Your task to perform on an android device: open app "Google Pay: Save, Pay, Manage" Image 0: 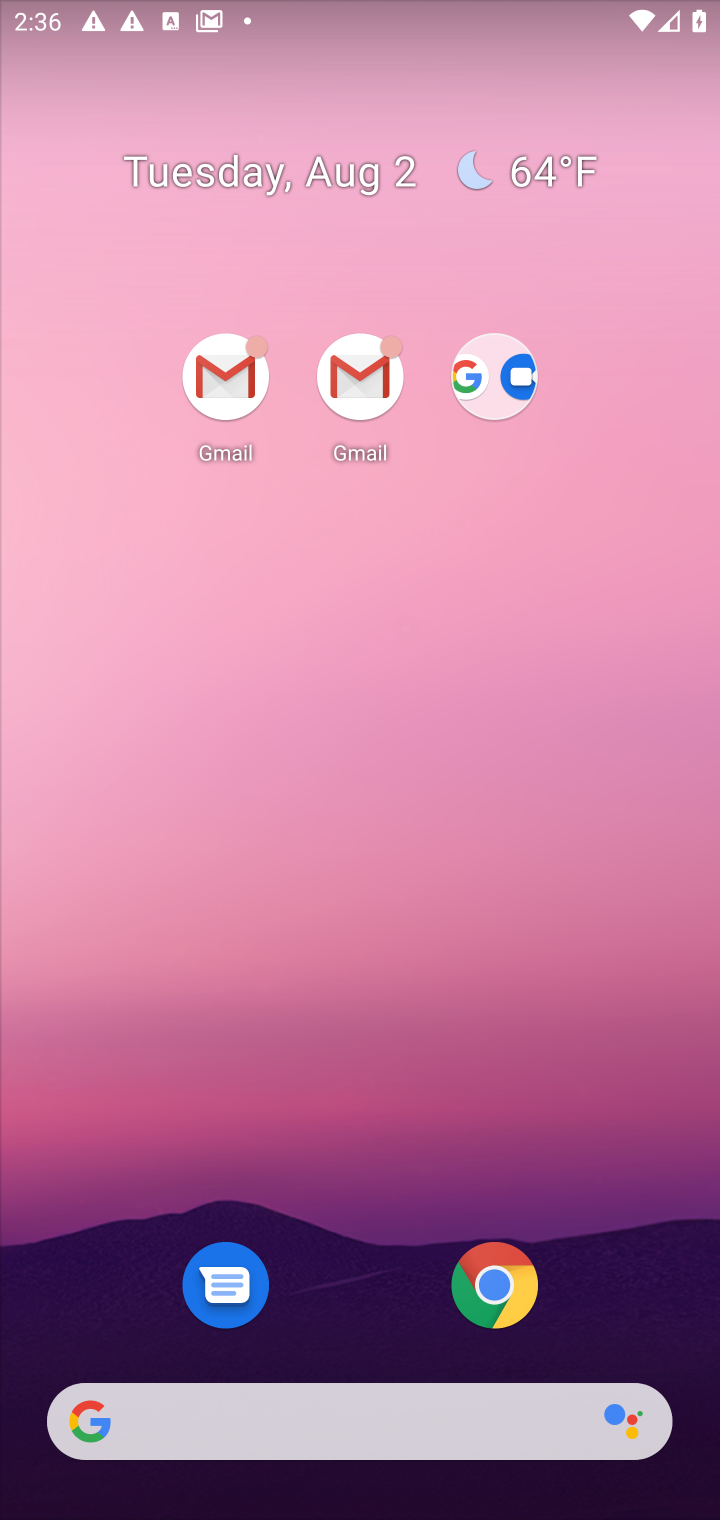
Step 0: drag from (414, 804) to (552, 232)
Your task to perform on an android device: open app "Google Pay: Save, Pay, Manage" Image 1: 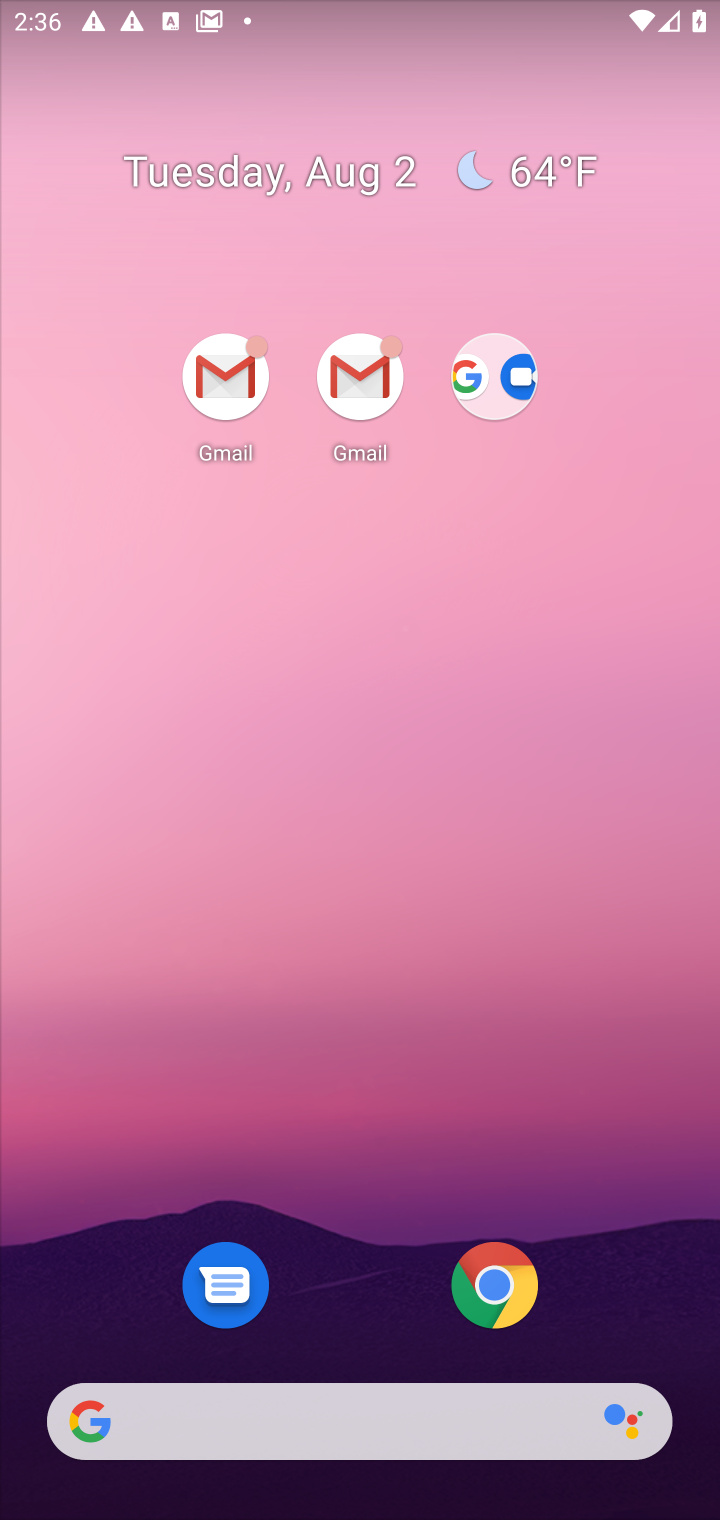
Step 1: drag from (494, 640) to (548, 50)
Your task to perform on an android device: open app "Google Pay: Save, Pay, Manage" Image 2: 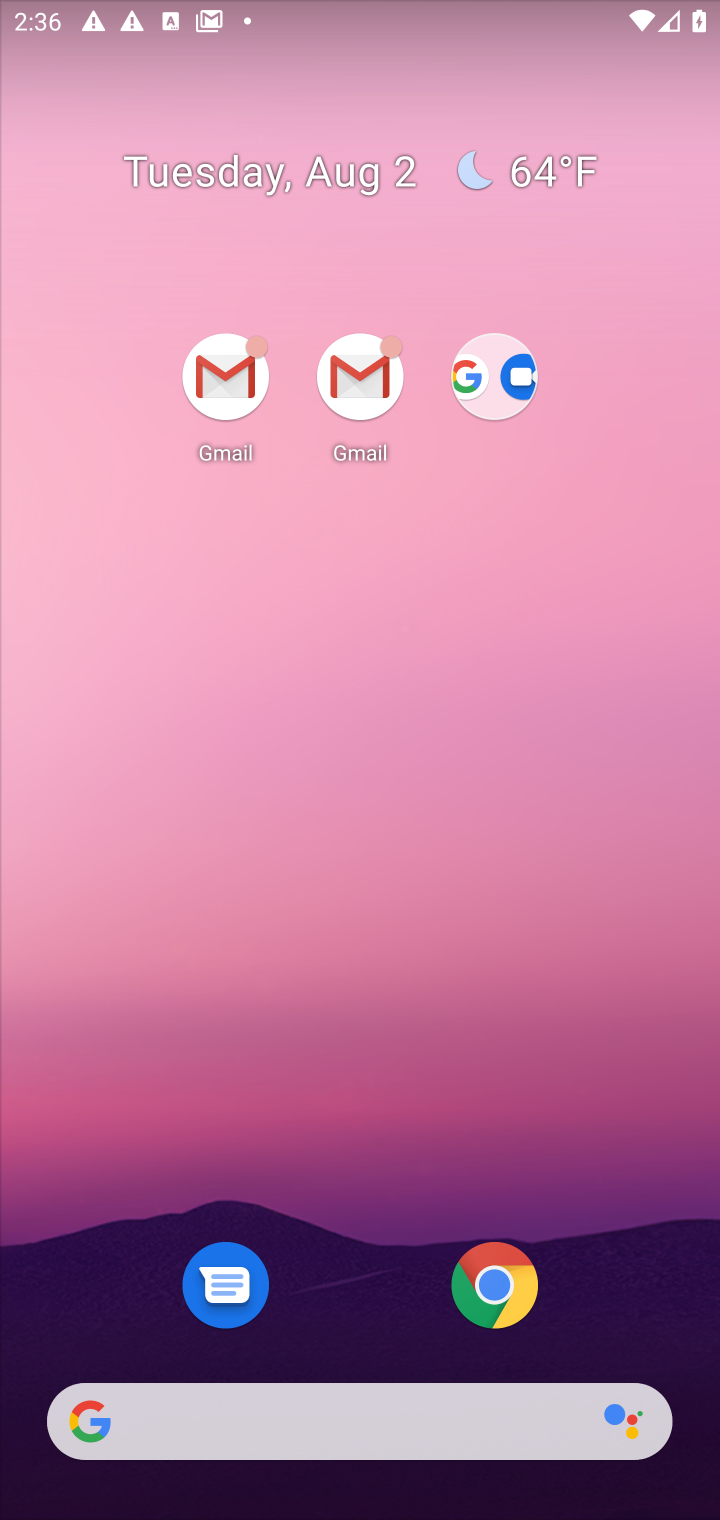
Step 2: drag from (585, 963) to (566, 272)
Your task to perform on an android device: open app "Google Pay: Save, Pay, Manage" Image 3: 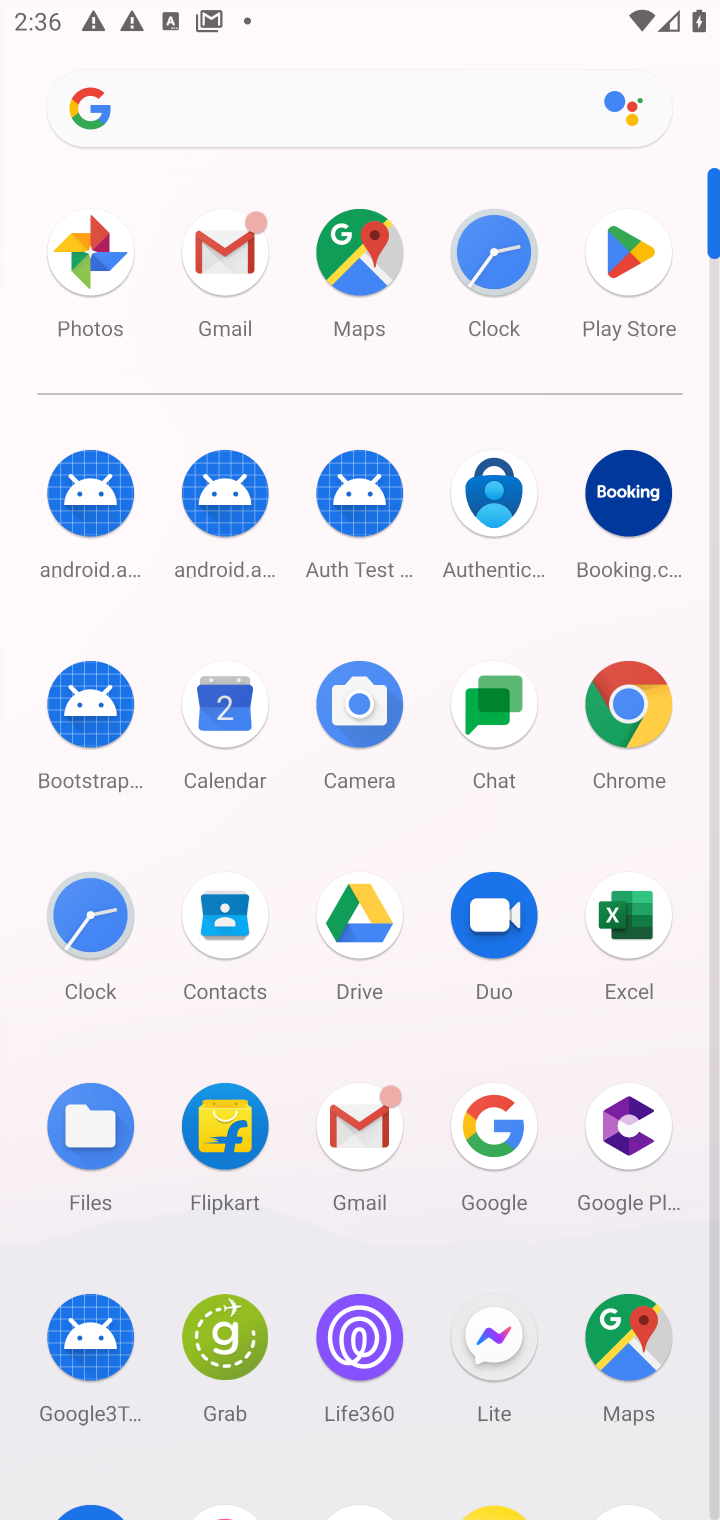
Step 3: drag from (429, 1351) to (452, 603)
Your task to perform on an android device: open app "Google Pay: Save, Pay, Manage" Image 4: 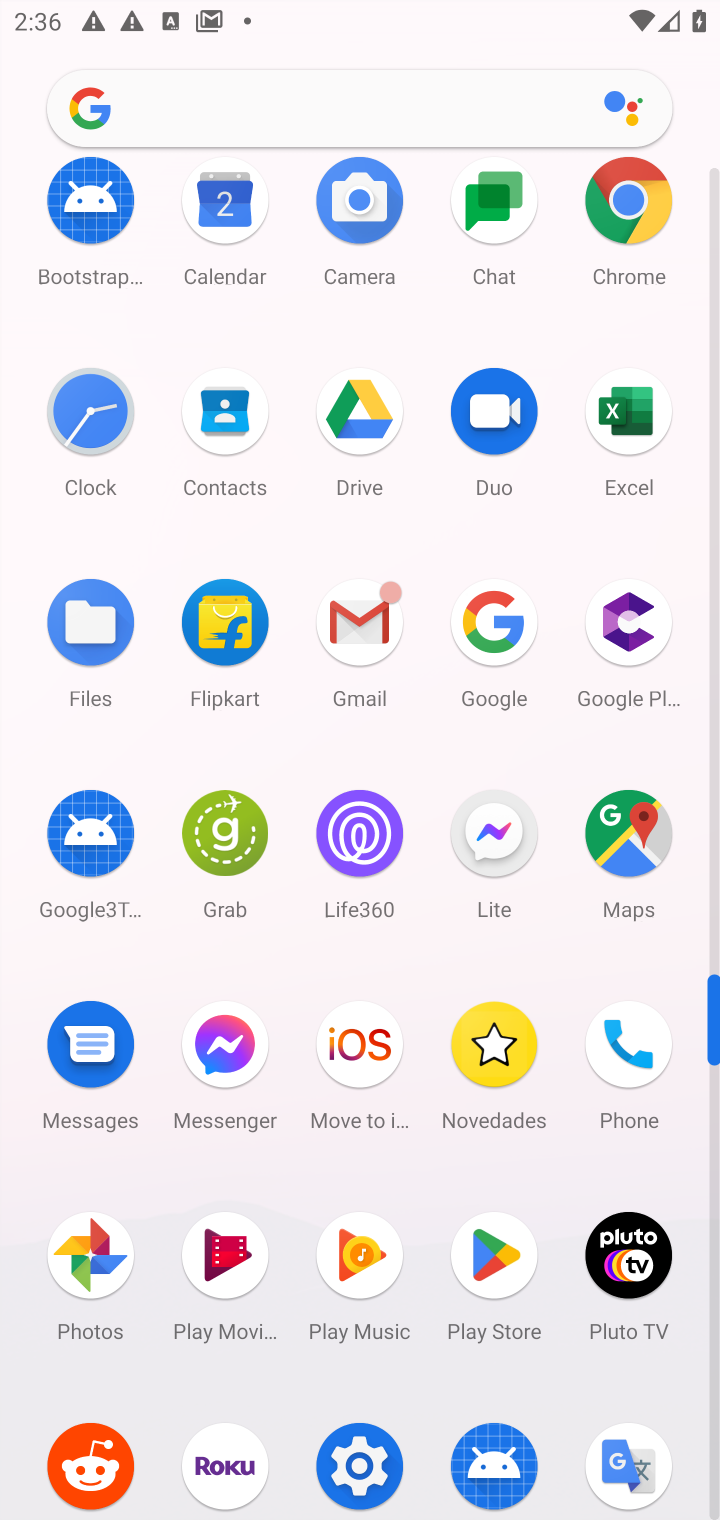
Step 4: click (488, 1241)
Your task to perform on an android device: open app "Google Pay: Save, Pay, Manage" Image 5: 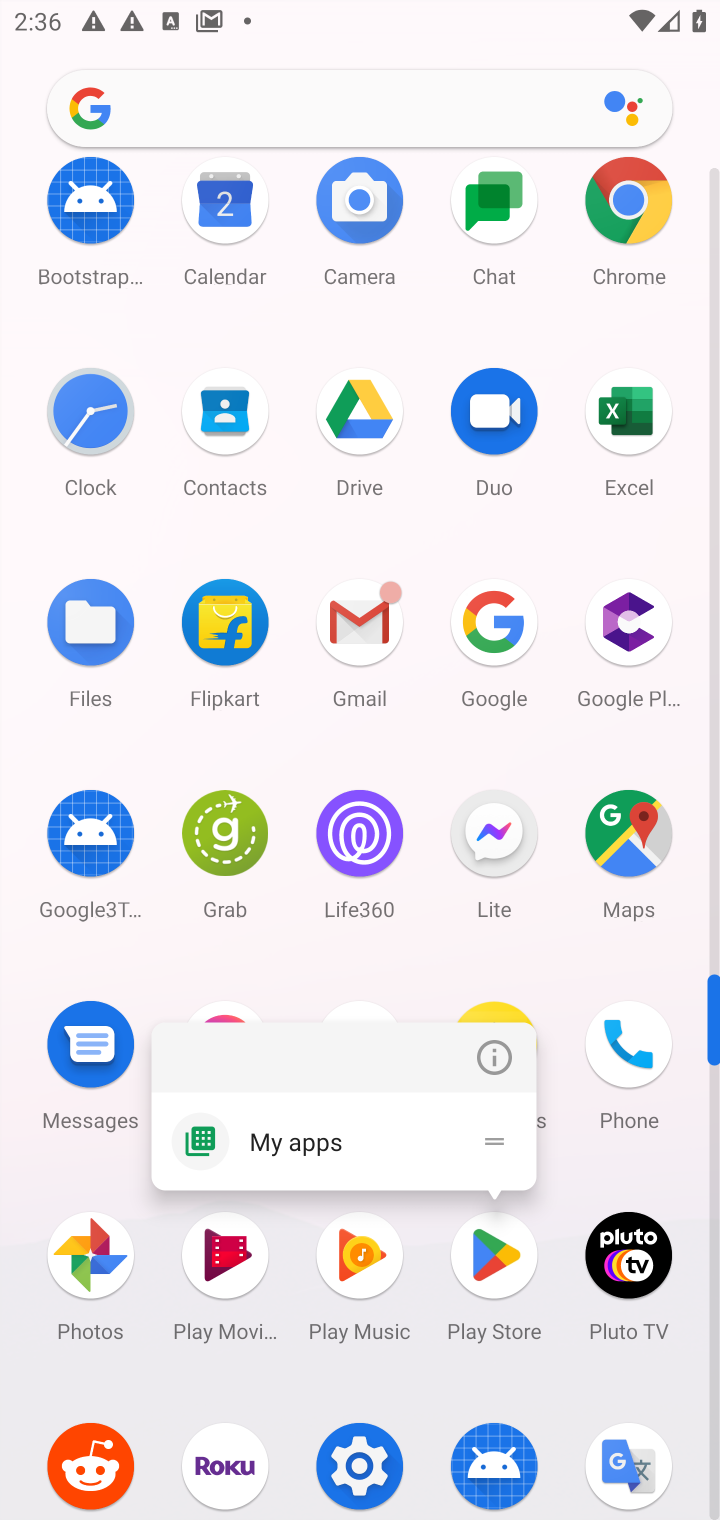
Step 5: click (501, 1257)
Your task to perform on an android device: open app "Google Pay: Save, Pay, Manage" Image 6: 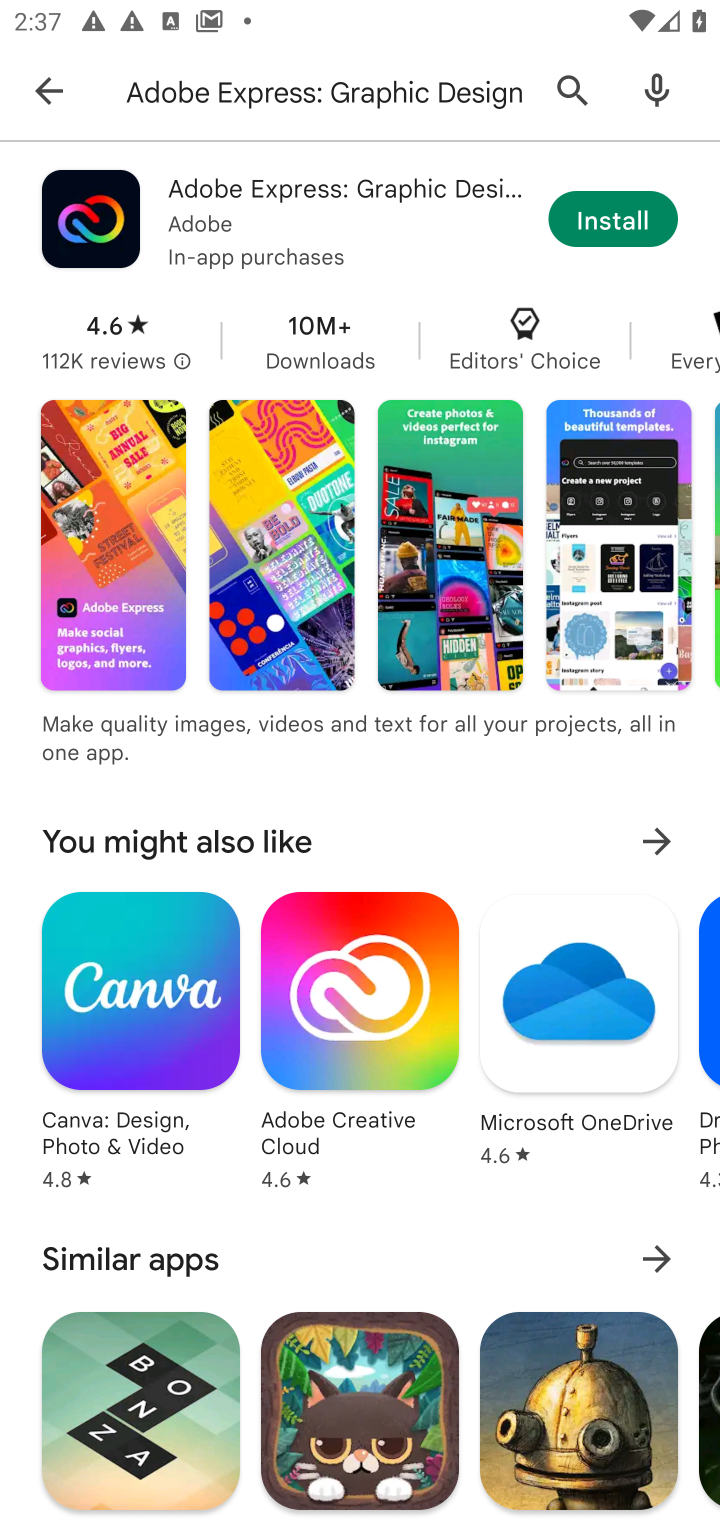
Step 6: click (398, 63)
Your task to perform on an android device: open app "Google Pay: Save, Pay, Manage" Image 7: 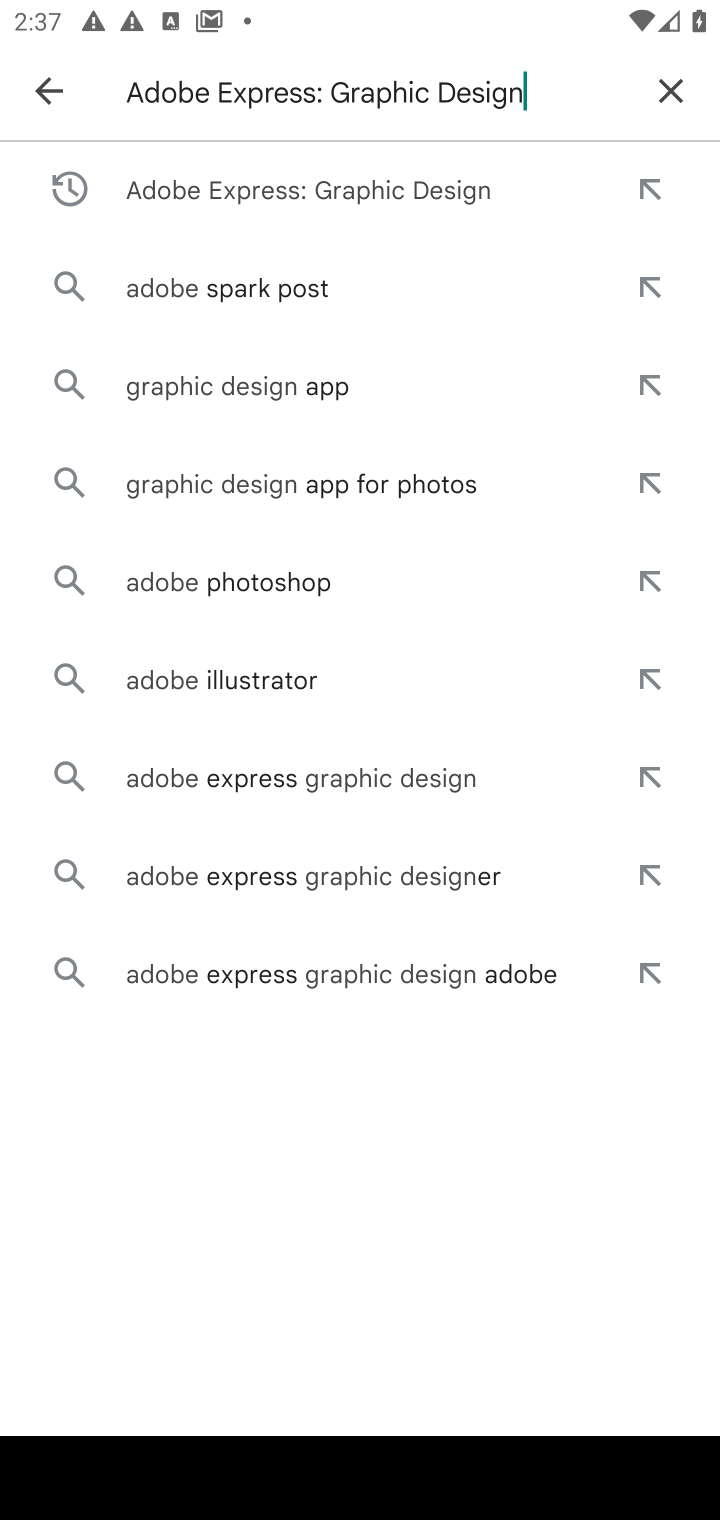
Step 7: click (685, 79)
Your task to perform on an android device: open app "Google Pay: Save, Pay, Manage" Image 8: 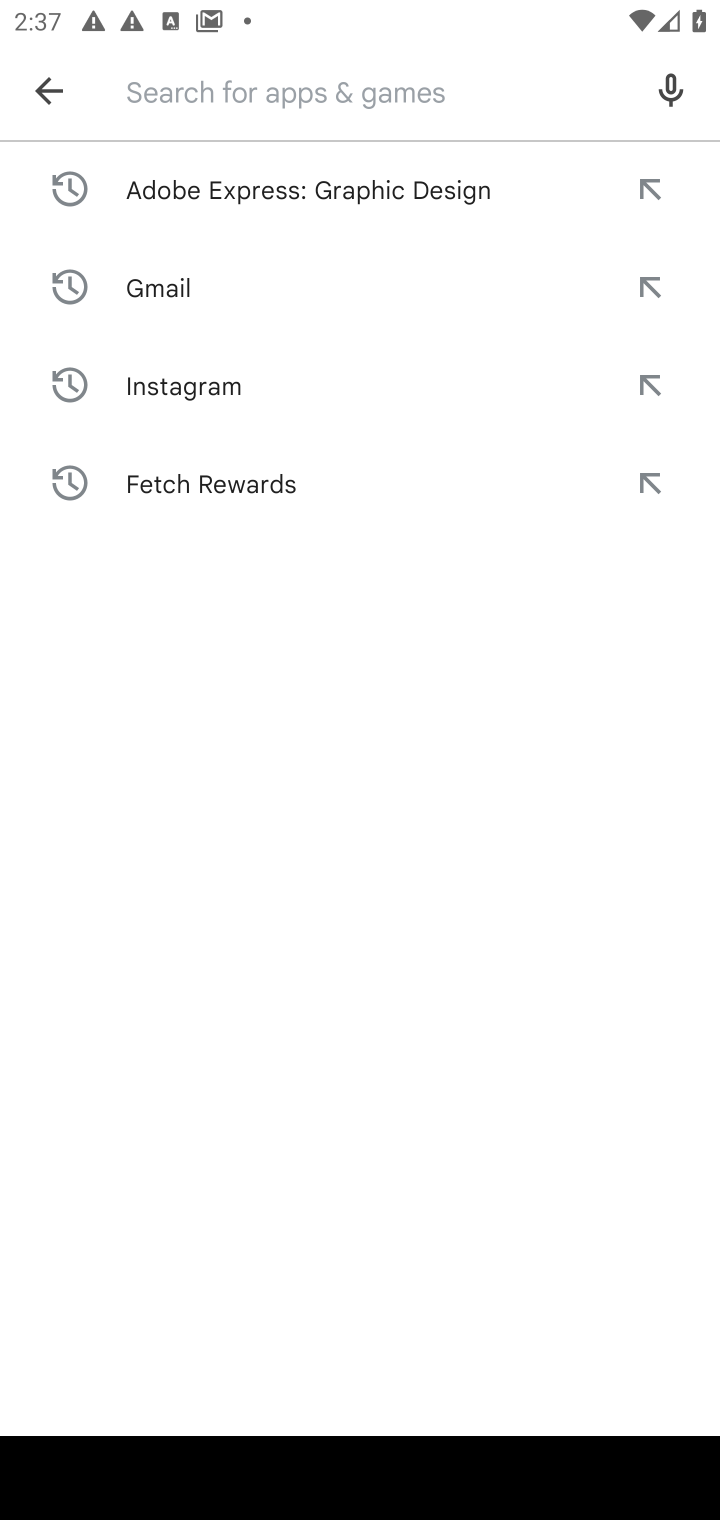
Step 8: type "Google Pay: Save, Pay, Manage"
Your task to perform on an android device: open app "Google Pay: Save, Pay, Manage" Image 9: 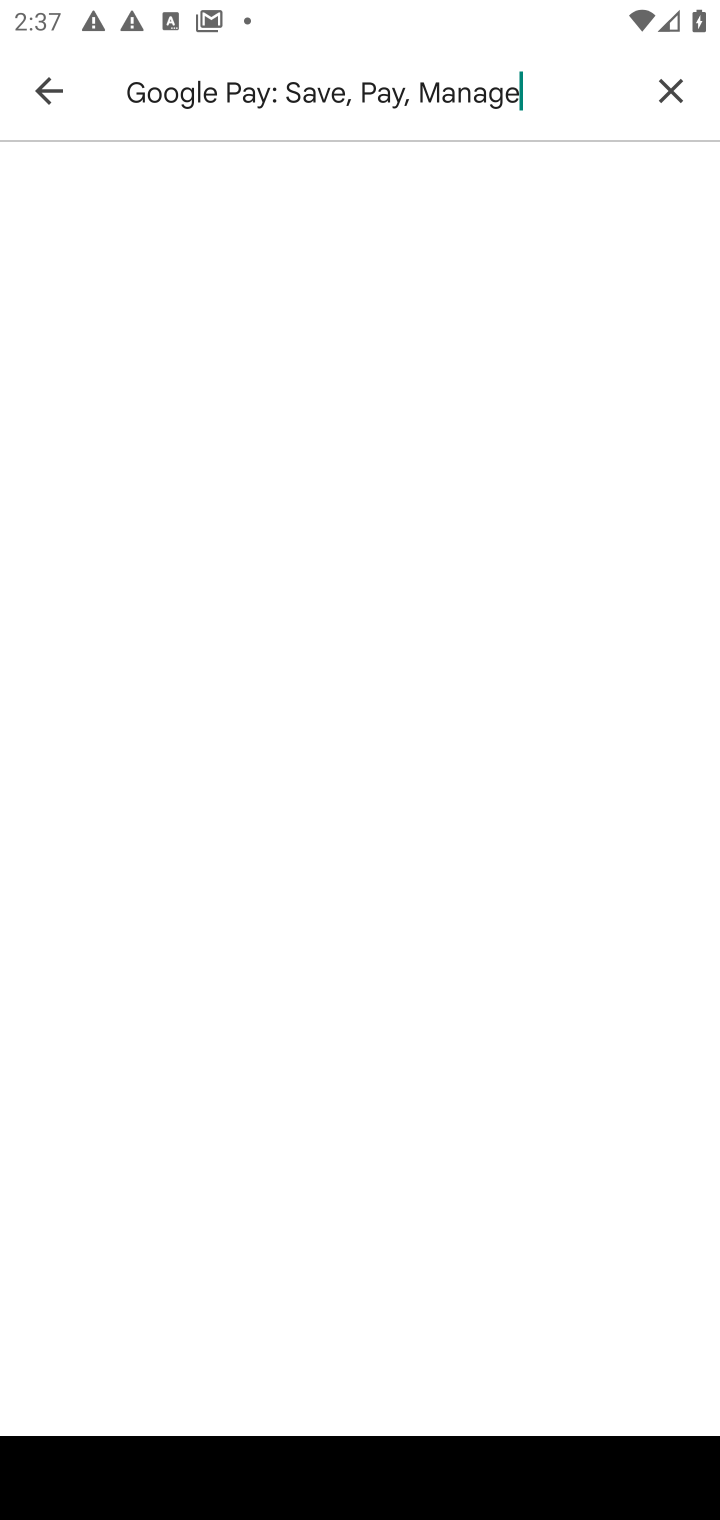
Step 9: press enter
Your task to perform on an android device: open app "Google Pay: Save, Pay, Manage" Image 10: 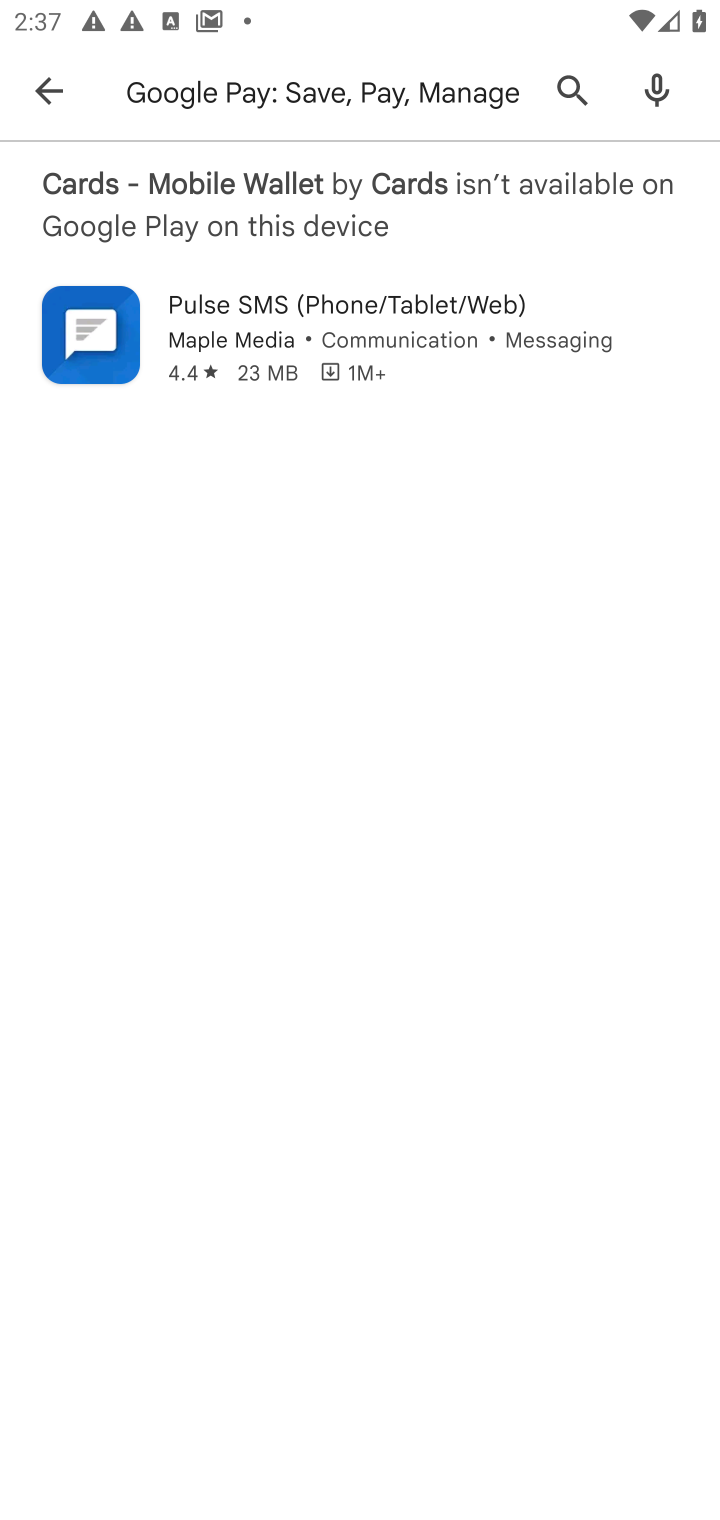
Step 10: task complete